Your task to perform on an android device: Go to eBay Image 0: 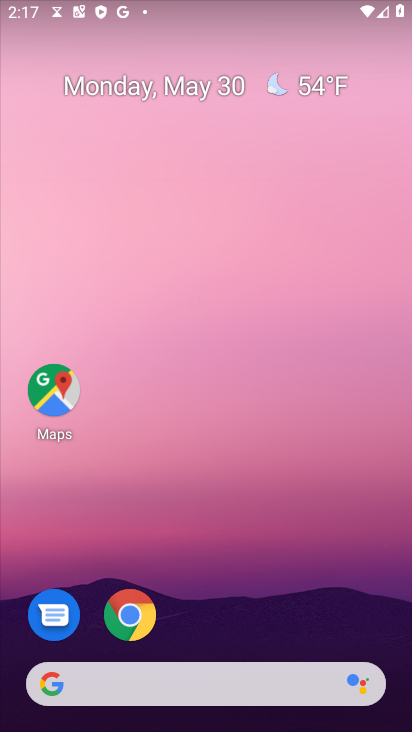
Step 0: drag from (283, 585) to (219, 152)
Your task to perform on an android device: Go to eBay Image 1: 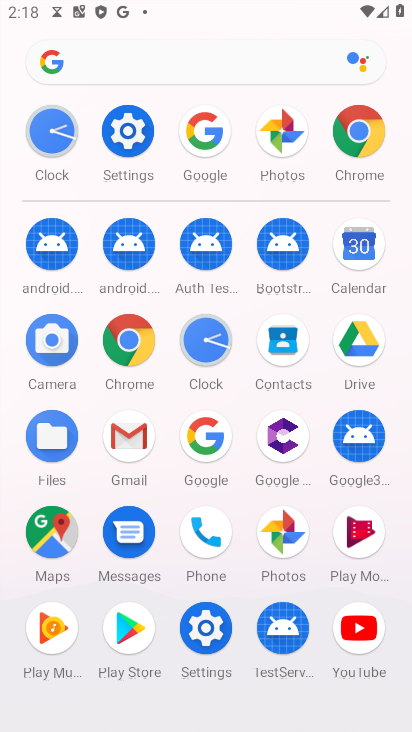
Step 1: click (365, 142)
Your task to perform on an android device: Go to eBay Image 2: 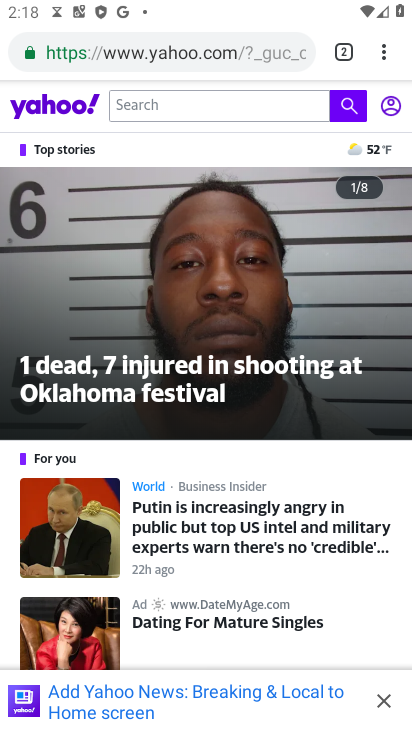
Step 2: click (225, 43)
Your task to perform on an android device: Go to eBay Image 3: 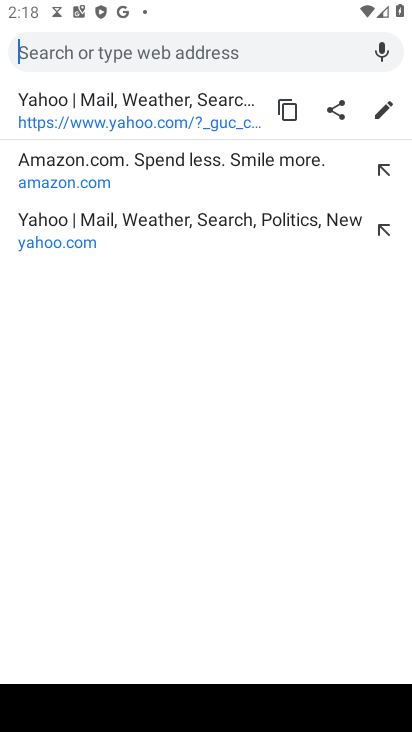
Step 3: type "eaby"
Your task to perform on an android device: Go to eBay Image 4: 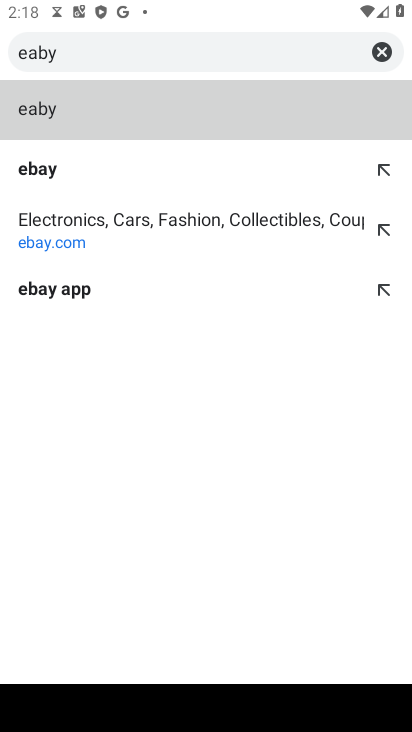
Step 4: click (80, 235)
Your task to perform on an android device: Go to eBay Image 5: 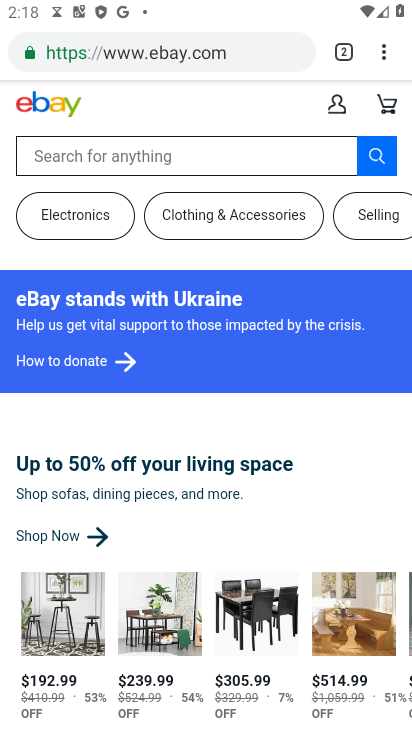
Step 5: task complete